Your task to perform on an android device: Search for alienware aurora on costco, select the first entry, and add it to the cart. Image 0: 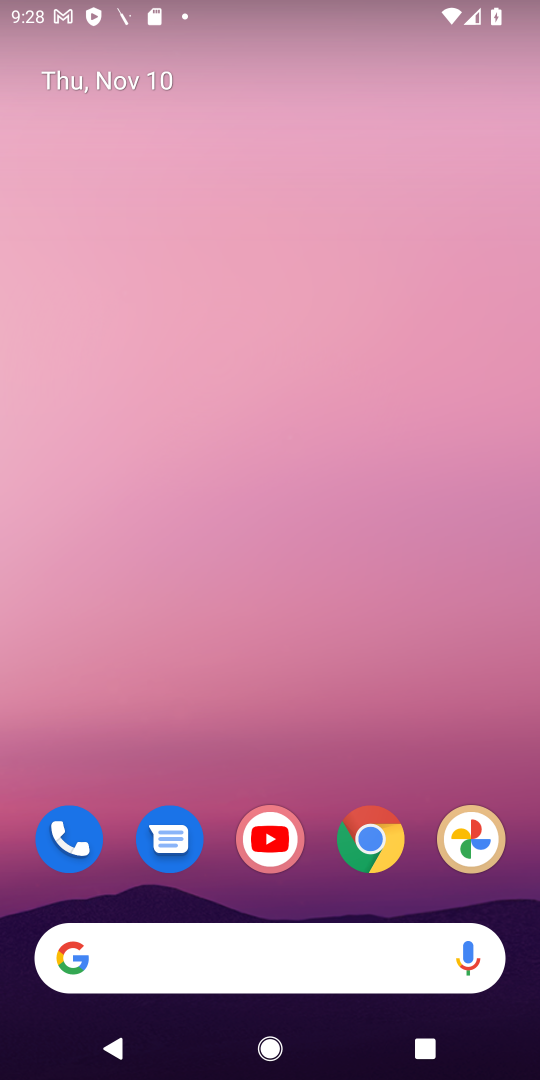
Step 0: click (386, 830)
Your task to perform on an android device: Search for alienware aurora on costco, select the first entry, and add it to the cart. Image 1: 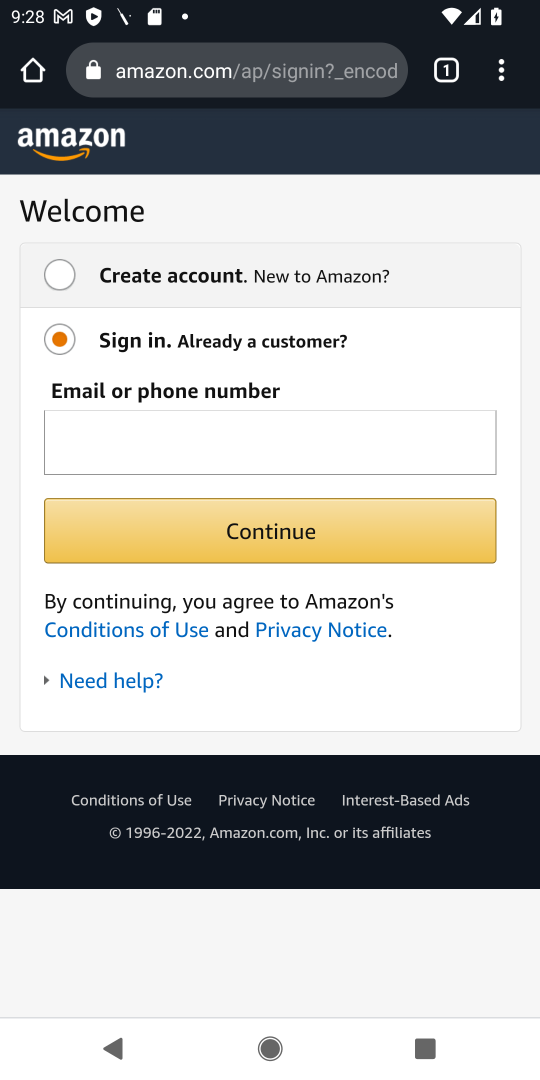
Step 1: click (269, 70)
Your task to perform on an android device: Search for alienware aurora on costco, select the first entry, and add it to the cart. Image 2: 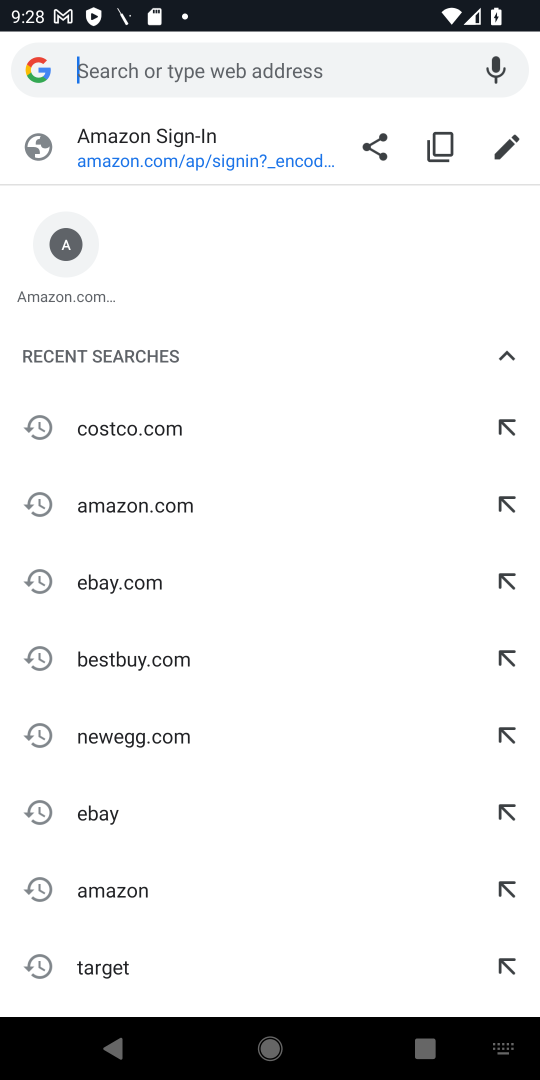
Step 2: click (163, 430)
Your task to perform on an android device: Search for alienware aurora on costco, select the first entry, and add it to the cart. Image 3: 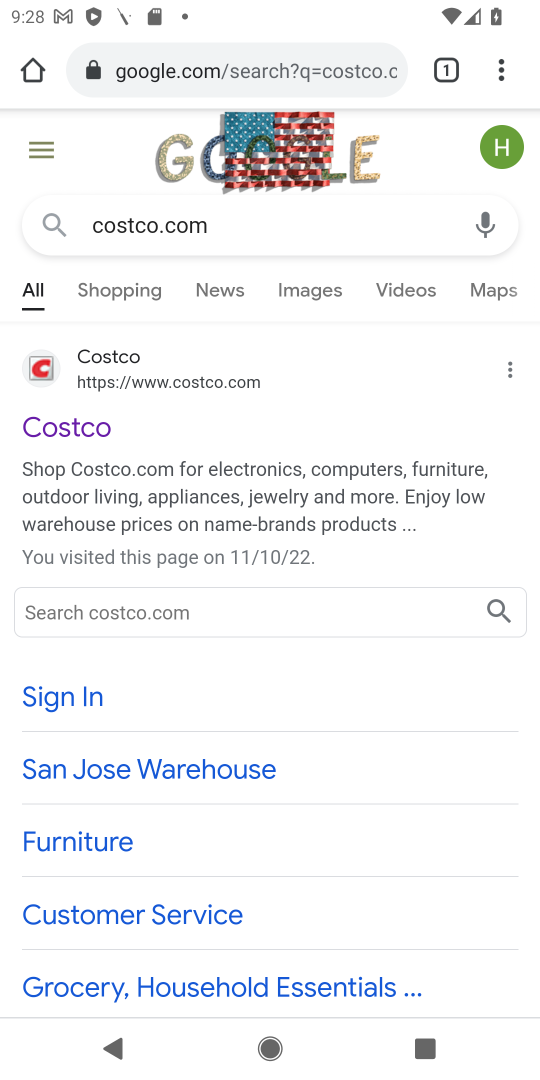
Step 3: click (206, 384)
Your task to perform on an android device: Search for alienware aurora on costco, select the first entry, and add it to the cart. Image 4: 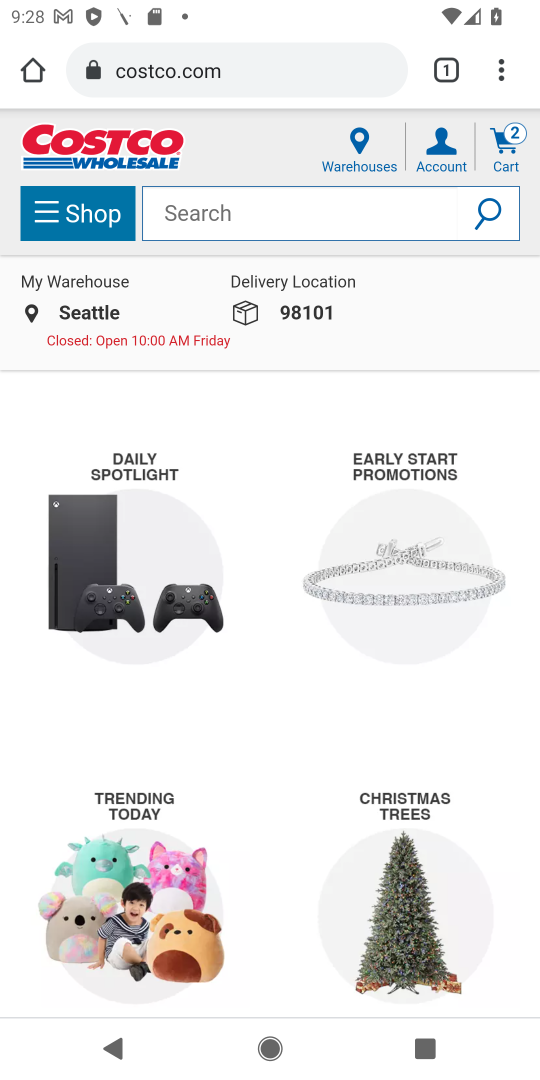
Step 4: click (375, 215)
Your task to perform on an android device: Search for alienware aurora on costco, select the first entry, and add it to the cart. Image 5: 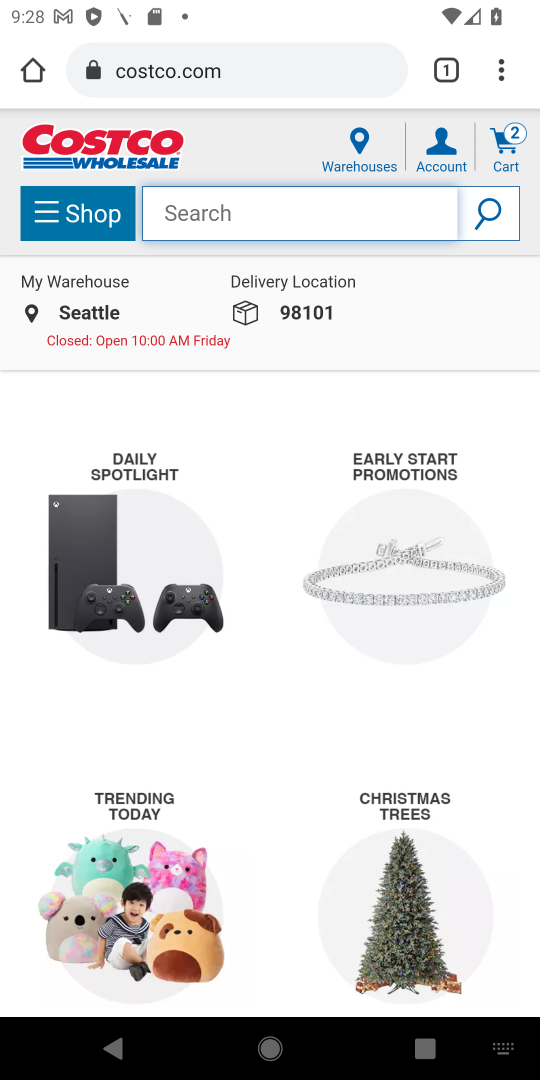
Step 5: type "alienware aurora"
Your task to perform on an android device: Search for alienware aurora on costco, select the first entry, and add it to the cart. Image 6: 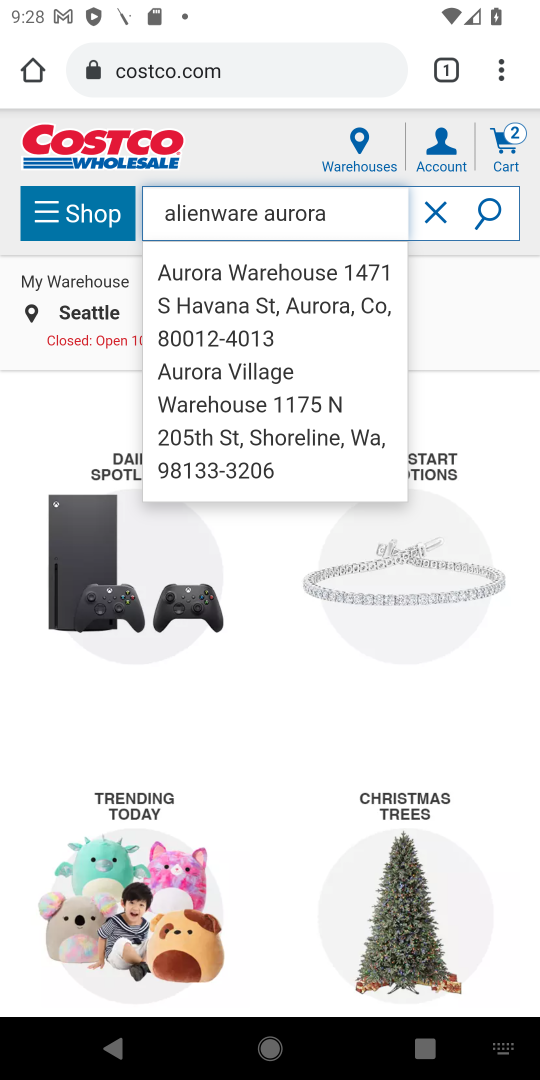
Step 6: click (474, 318)
Your task to perform on an android device: Search for alienware aurora on costco, select the first entry, and add it to the cart. Image 7: 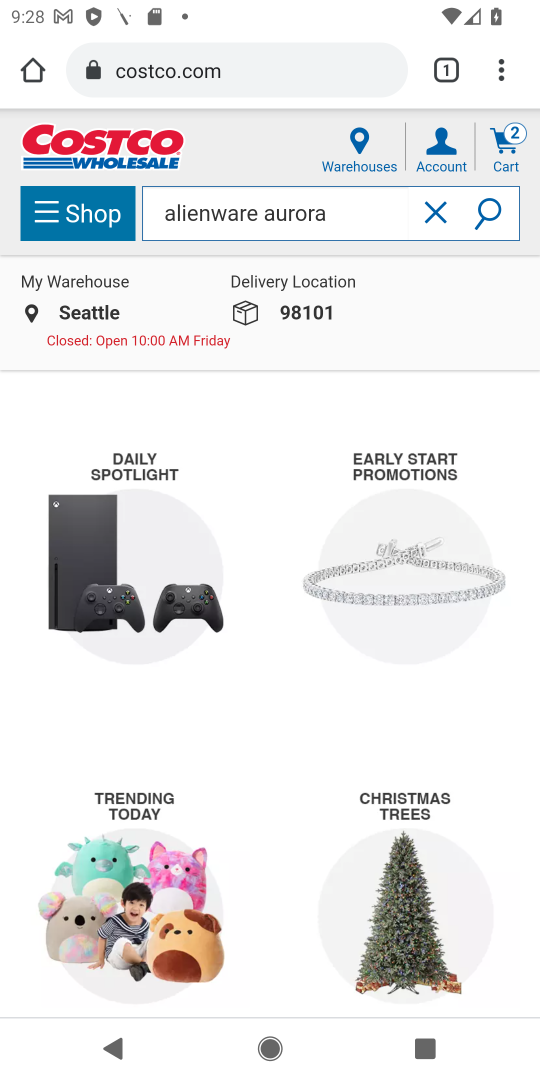
Step 7: task complete